Your task to perform on an android device: turn on location history Image 0: 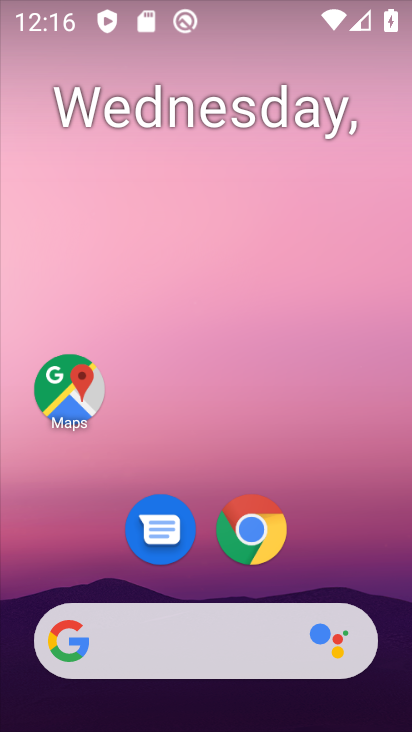
Step 0: drag from (386, 614) to (341, 233)
Your task to perform on an android device: turn on location history Image 1: 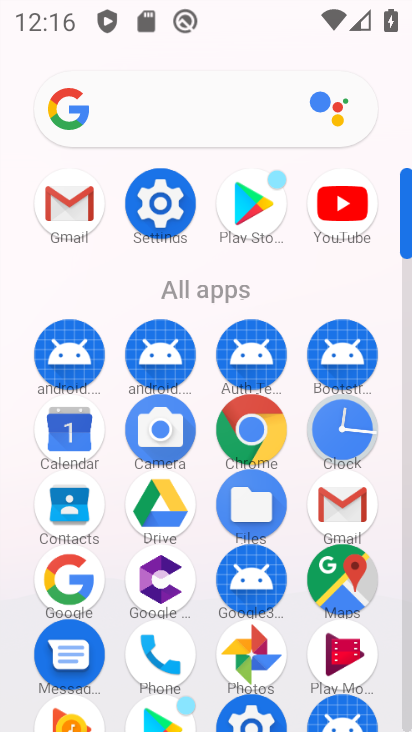
Step 1: click (340, 579)
Your task to perform on an android device: turn on location history Image 2: 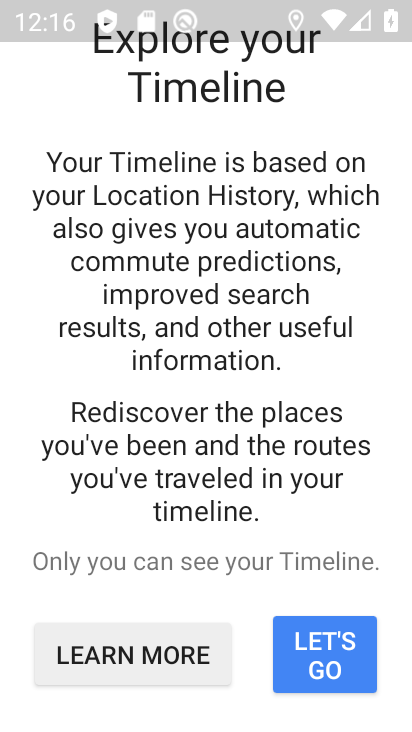
Step 2: press back button
Your task to perform on an android device: turn on location history Image 3: 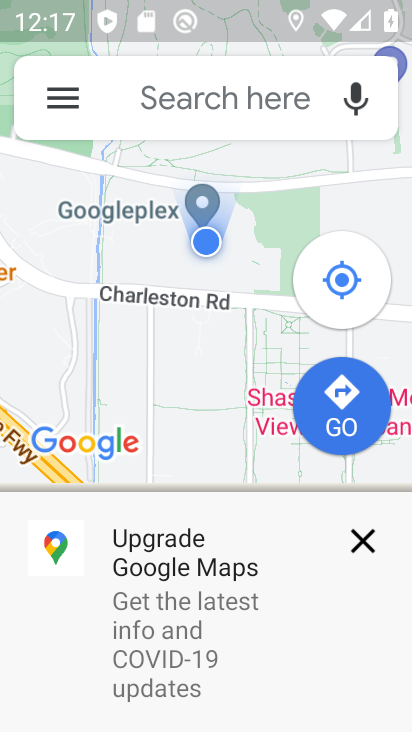
Step 3: click (360, 541)
Your task to perform on an android device: turn on location history Image 4: 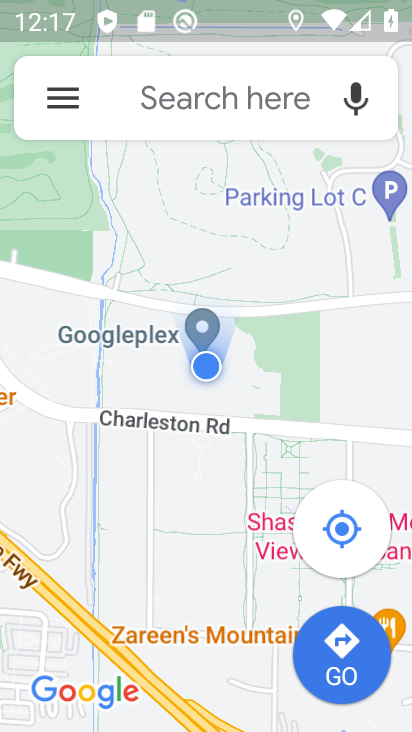
Step 4: click (63, 97)
Your task to perform on an android device: turn on location history Image 5: 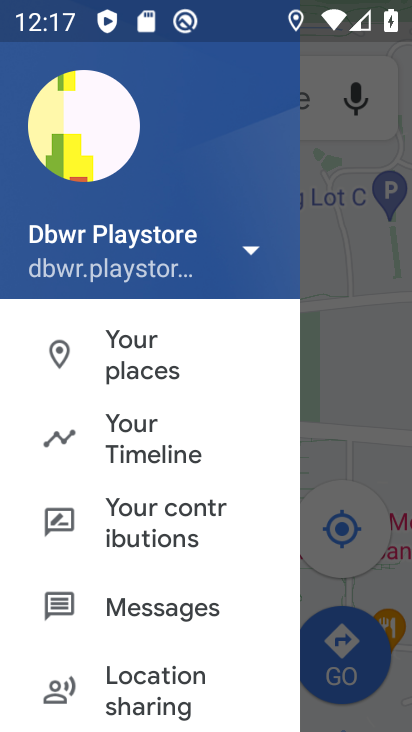
Step 5: drag from (261, 651) to (234, 233)
Your task to perform on an android device: turn on location history Image 6: 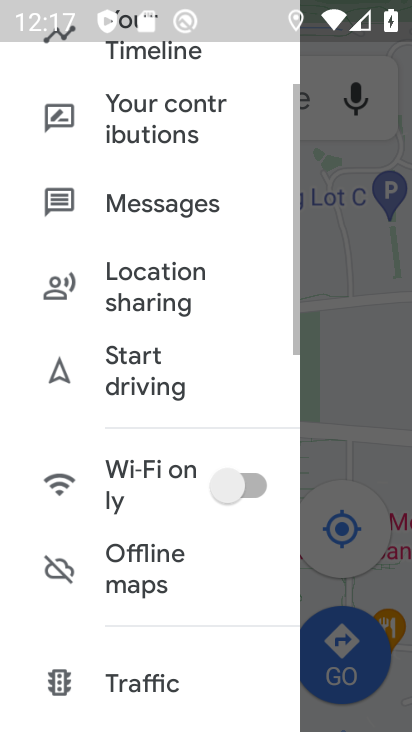
Step 6: drag from (247, 660) to (194, 171)
Your task to perform on an android device: turn on location history Image 7: 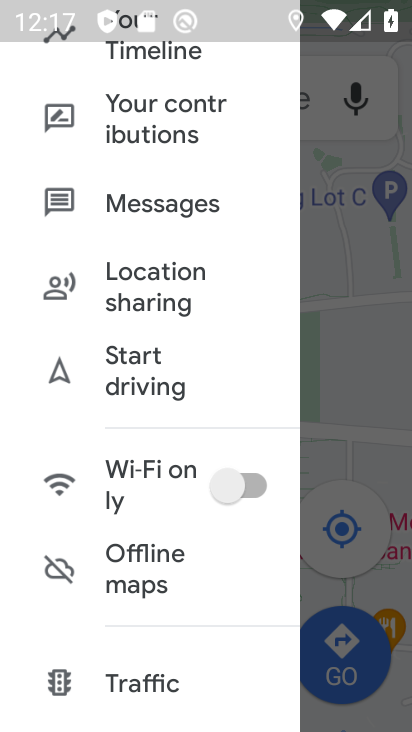
Step 7: drag from (216, 643) to (231, 137)
Your task to perform on an android device: turn on location history Image 8: 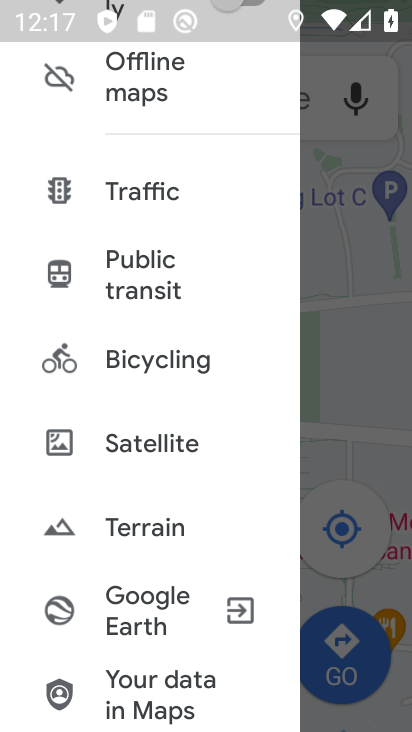
Step 8: drag from (221, 606) to (229, 224)
Your task to perform on an android device: turn on location history Image 9: 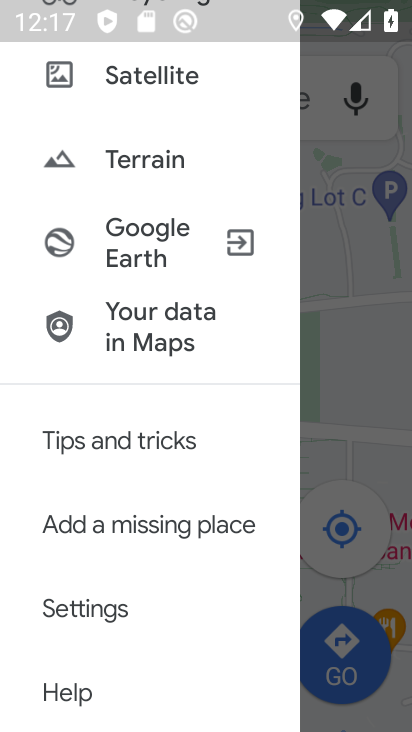
Step 9: click (99, 602)
Your task to perform on an android device: turn on location history Image 10: 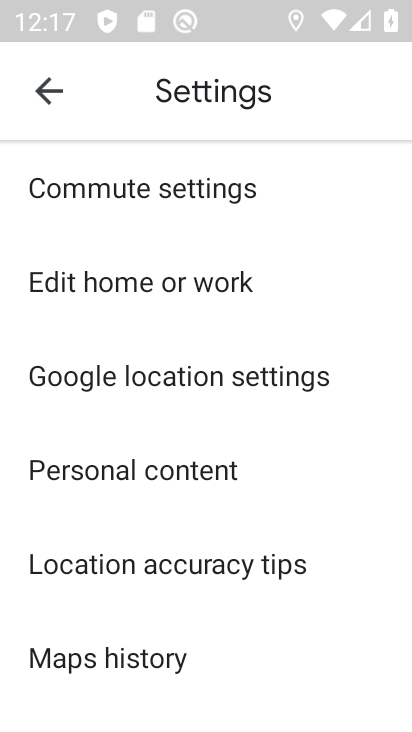
Step 10: click (135, 477)
Your task to perform on an android device: turn on location history Image 11: 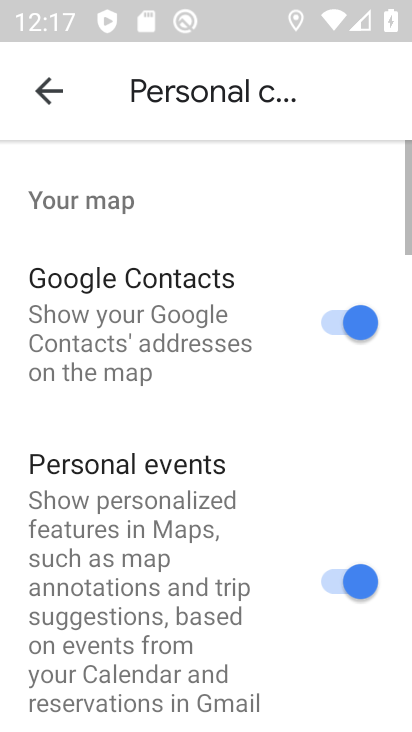
Step 11: drag from (291, 668) to (279, 200)
Your task to perform on an android device: turn on location history Image 12: 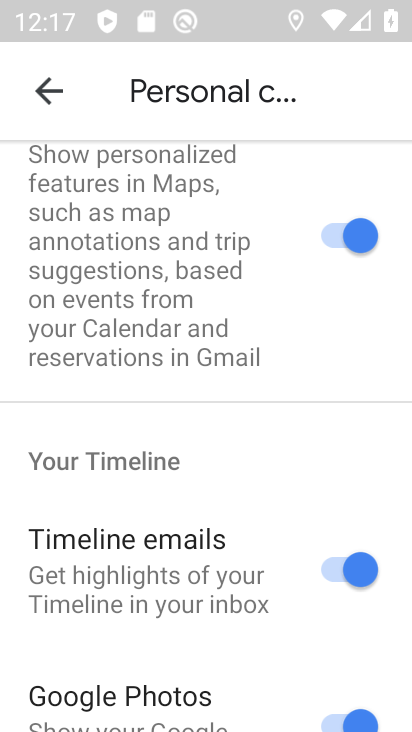
Step 12: drag from (301, 588) to (295, 192)
Your task to perform on an android device: turn on location history Image 13: 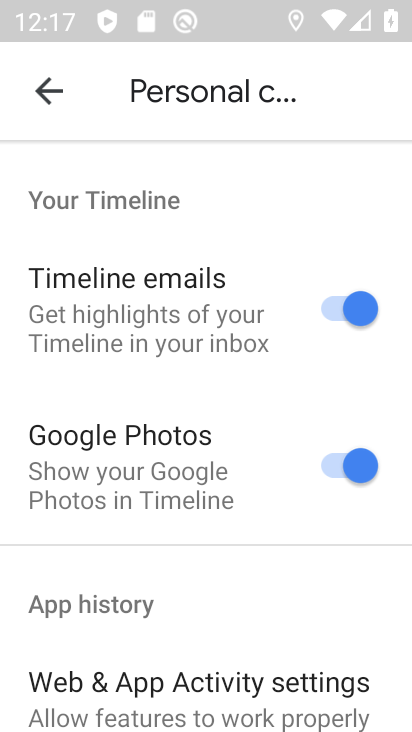
Step 13: drag from (271, 631) to (253, 190)
Your task to perform on an android device: turn on location history Image 14: 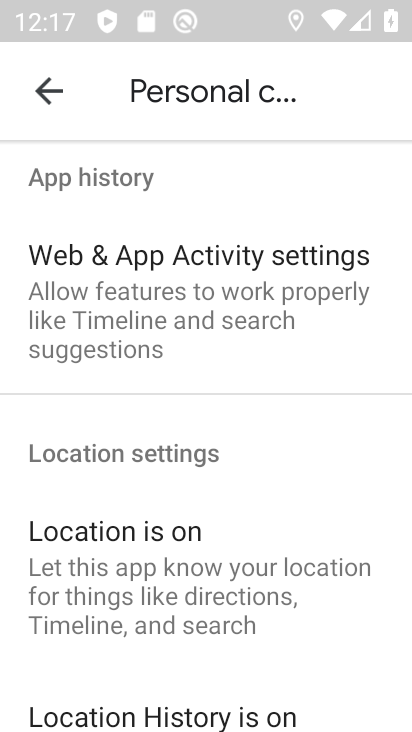
Step 14: drag from (312, 636) to (305, 292)
Your task to perform on an android device: turn on location history Image 15: 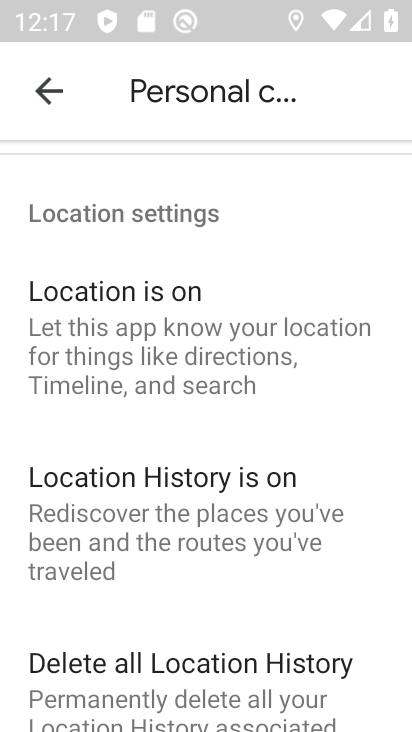
Step 15: press home button
Your task to perform on an android device: turn on location history Image 16: 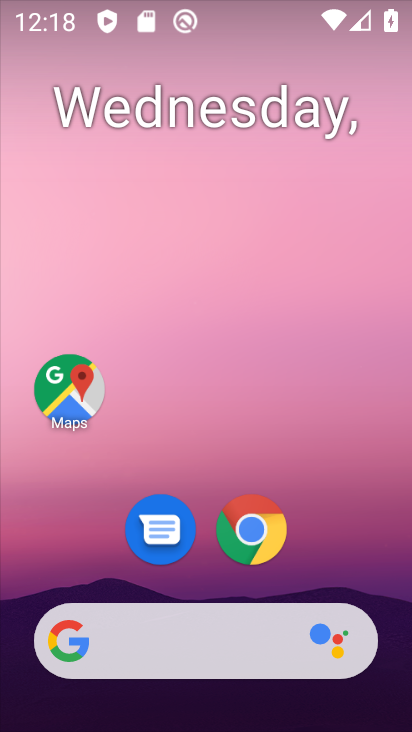
Step 16: click (64, 388)
Your task to perform on an android device: turn on location history Image 17: 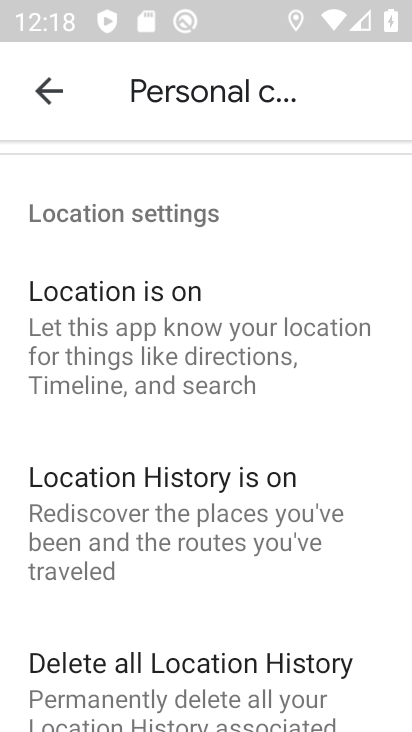
Step 17: task complete